Your task to perform on an android device: Open sound settings Image 0: 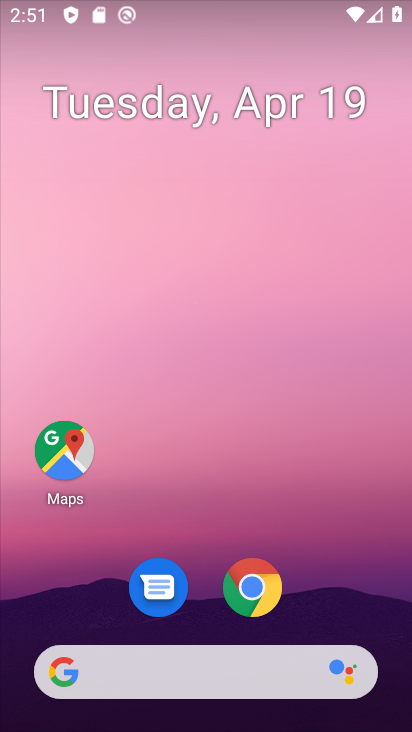
Step 0: drag from (384, 625) to (294, 62)
Your task to perform on an android device: Open sound settings Image 1: 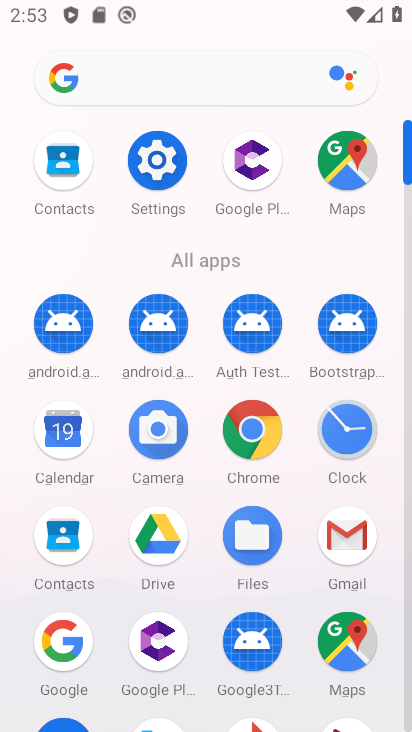
Step 1: click (161, 156)
Your task to perform on an android device: Open sound settings Image 2: 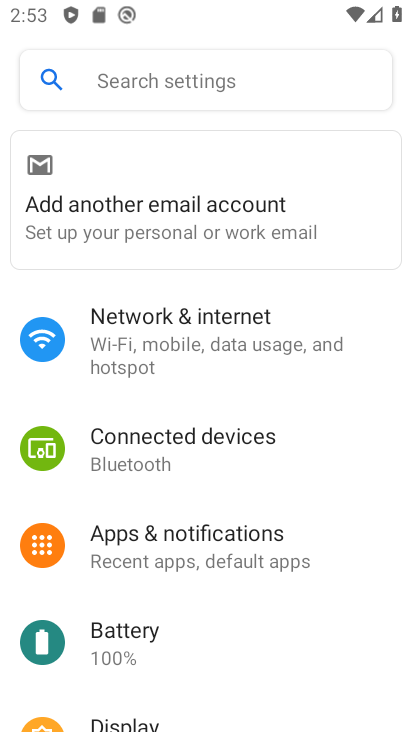
Step 2: drag from (121, 697) to (319, 151)
Your task to perform on an android device: Open sound settings Image 3: 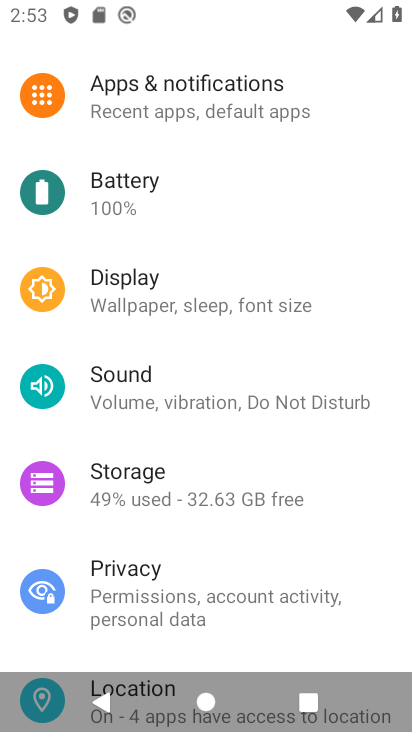
Step 3: click (147, 376)
Your task to perform on an android device: Open sound settings Image 4: 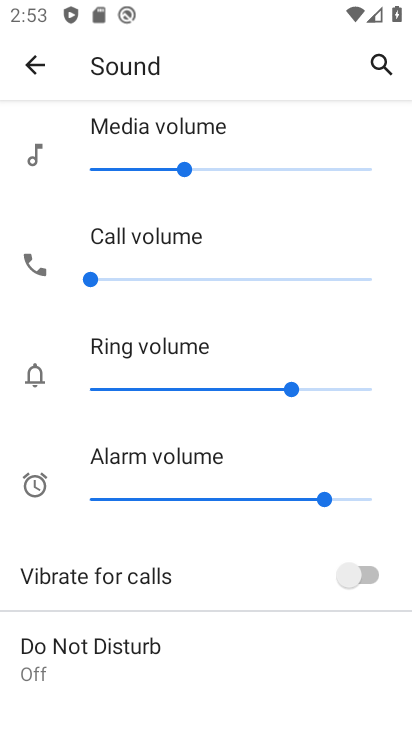
Step 4: task complete